Your task to perform on an android device: Open Wikipedia Image 0: 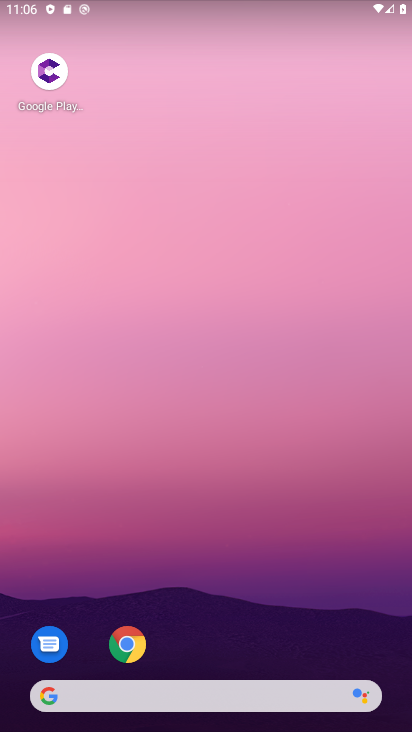
Step 0: click (129, 644)
Your task to perform on an android device: Open Wikipedia Image 1: 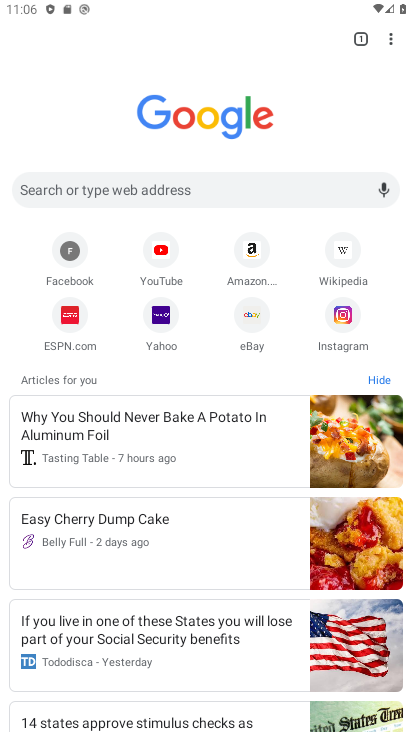
Step 1: click (337, 252)
Your task to perform on an android device: Open Wikipedia Image 2: 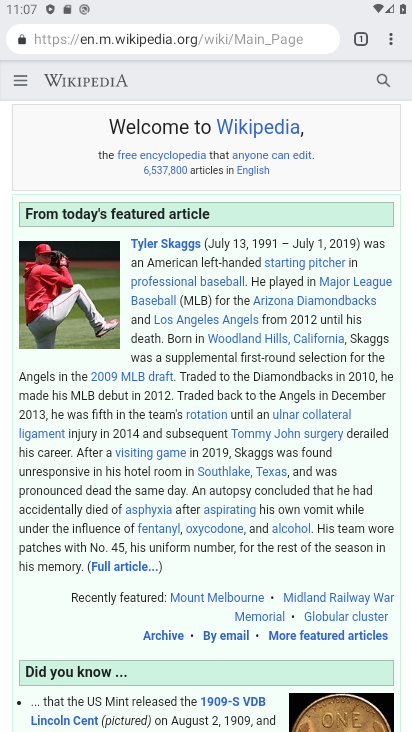
Step 2: task complete